Your task to perform on an android device: check battery use Image 0: 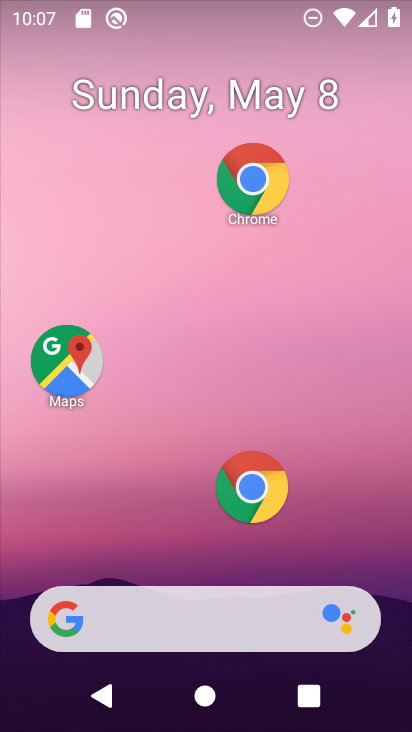
Step 0: drag from (202, 545) to (232, 83)
Your task to perform on an android device: check battery use Image 1: 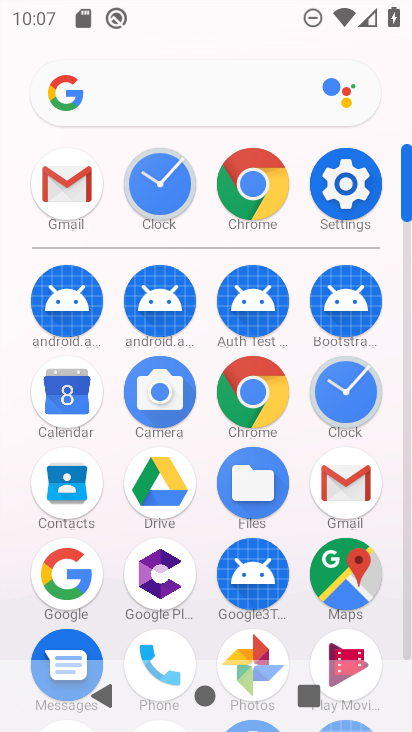
Step 1: click (339, 173)
Your task to perform on an android device: check battery use Image 2: 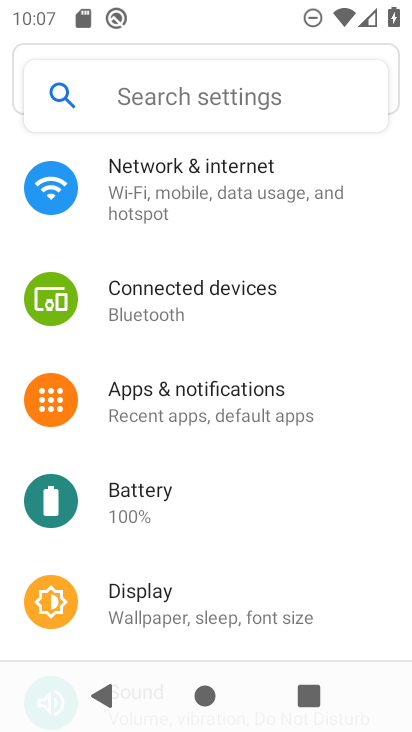
Step 2: click (210, 497)
Your task to perform on an android device: check battery use Image 3: 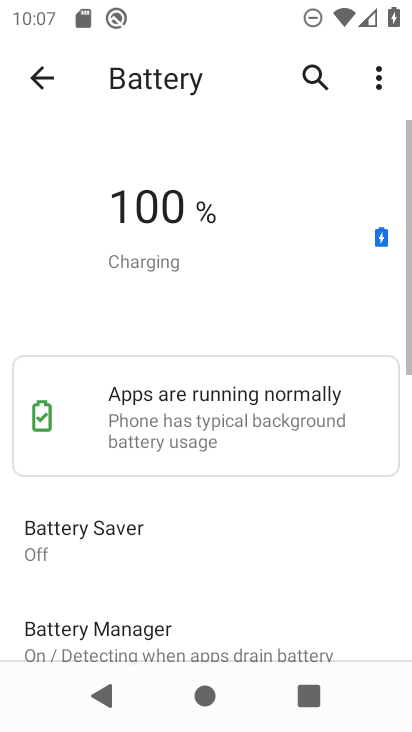
Step 3: click (380, 76)
Your task to perform on an android device: check battery use Image 4: 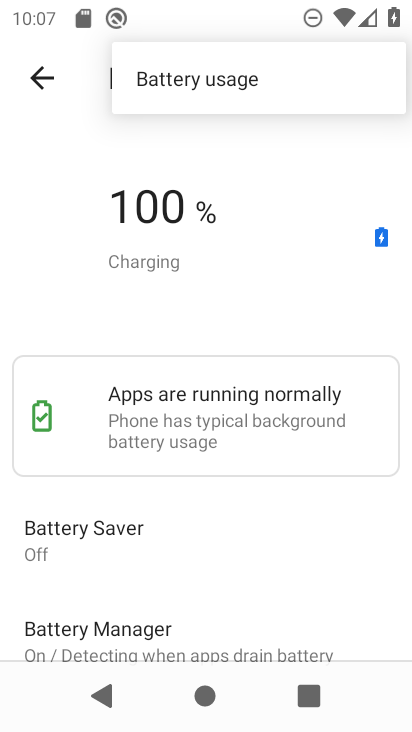
Step 4: click (287, 79)
Your task to perform on an android device: check battery use Image 5: 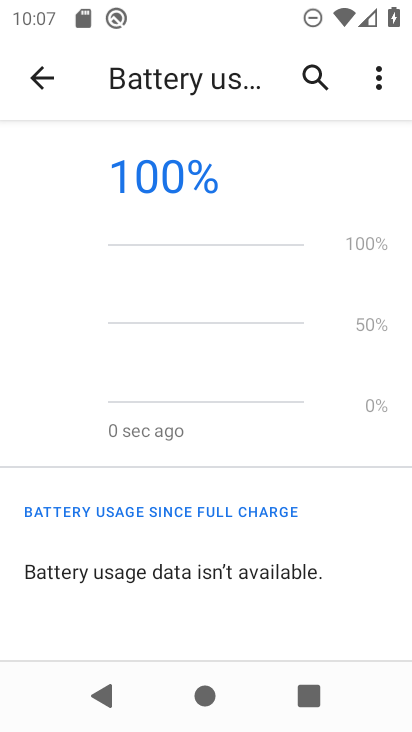
Step 5: task complete